Your task to perform on an android device: Open Google Image 0: 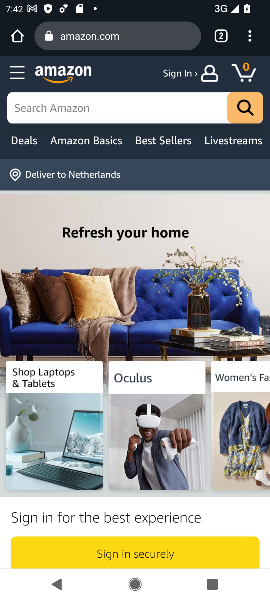
Step 0: click (110, 33)
Your task to perform on an android device: Open Google Image 1: 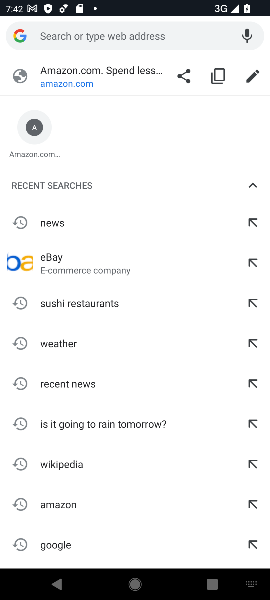
Step 1: type "google"
Your task to perform on an android device: Open Google Image 2: 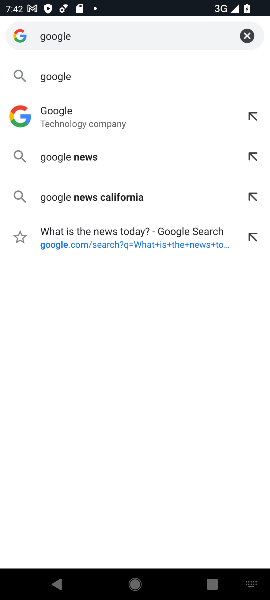
Step 2: click (65, 120)
Your task to perform on an android device: Open Google Image 3: 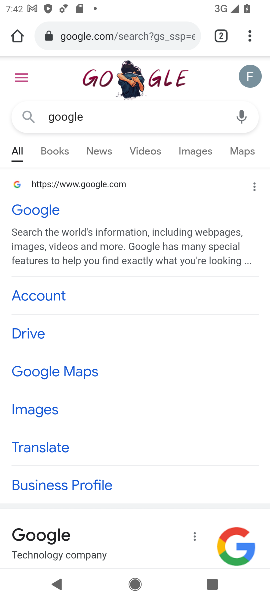
Step 3: click (21, 207)
Your task to perform on an android device: Open Google Image 4: 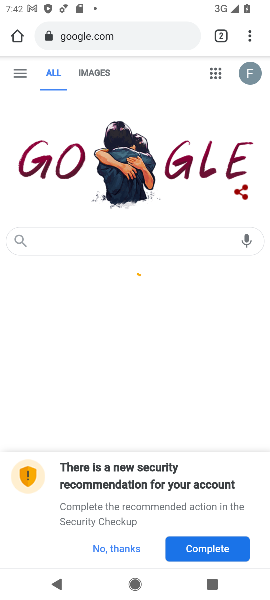
Step 4: click (122, 543)
Your task to perform on an android device: Open Google Image 5: 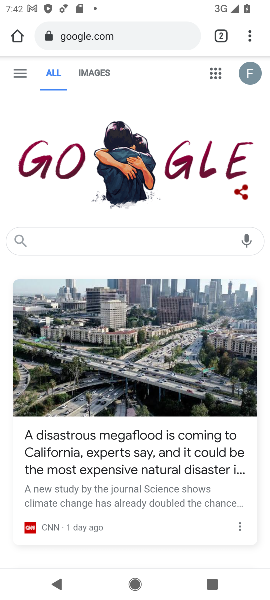
Step 5: task complete